Your task to perform on an android device: turn smart compose on in the gmail app Image 0: 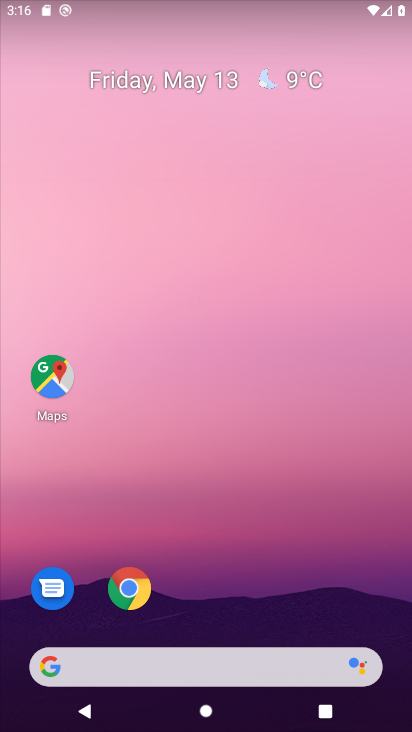
Step 0: drag from (339, 594) to (239, 159)
Your task to perform on an android device: turn smart compose on in the gmail app Image 1: 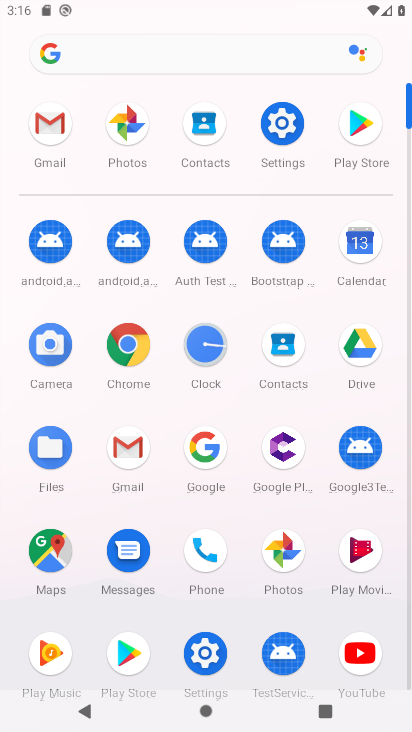
Step 1: click (136, 447)
Your task to perform on an android device: turn smart compose on in the gmail app Image 2: 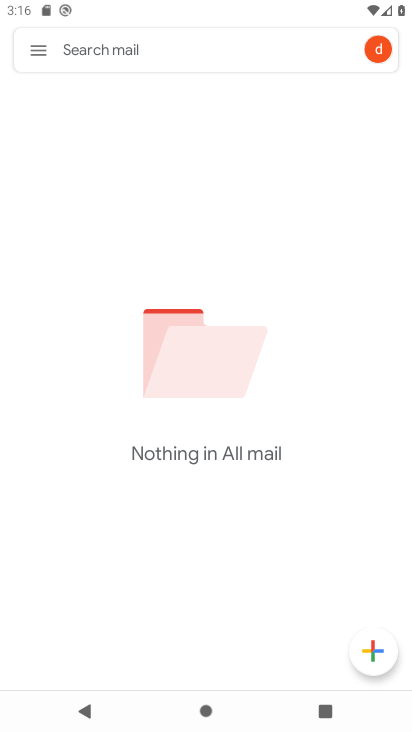
Step 2: click (47, 47)
Your task to perform on an android device: turn smart compose on in the gmail app Image 3: 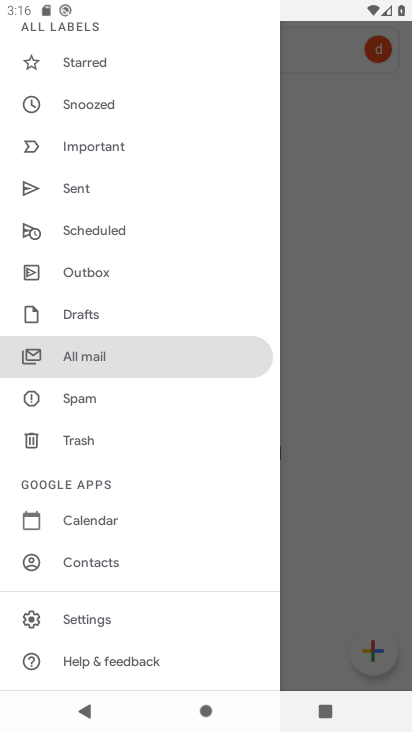
Step 3: click (120, 616)
Your task to perform on an android device: turn smart compose on in the gmail app Image 4: 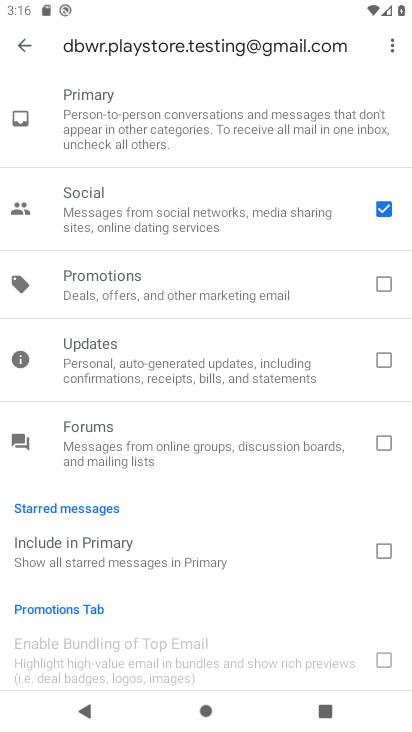
Step 4: click (19, 52)
Your task to perform on an android device: turn smart compose on in the gmail app Image 5: 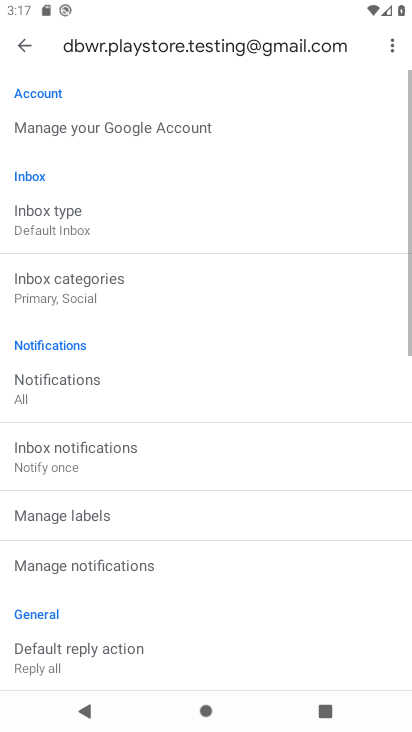
Step 5: task complete